Your task to perform on an android device: turn off priority inbox in the gmail app Image 0: 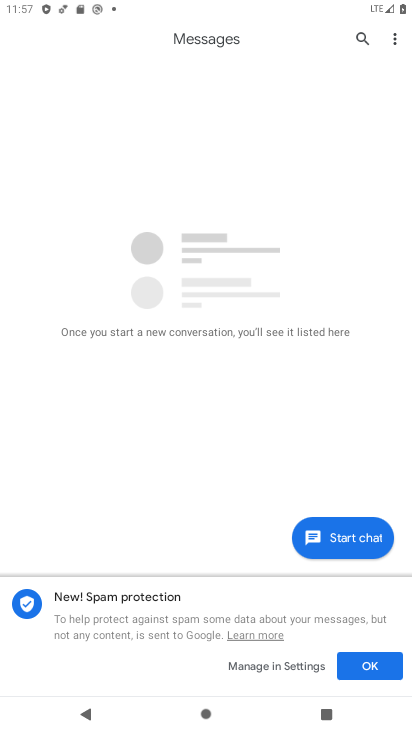
Step 0: press home button
Your task to perform on an android device: turn off priority inbox in the gmail app Image 1: 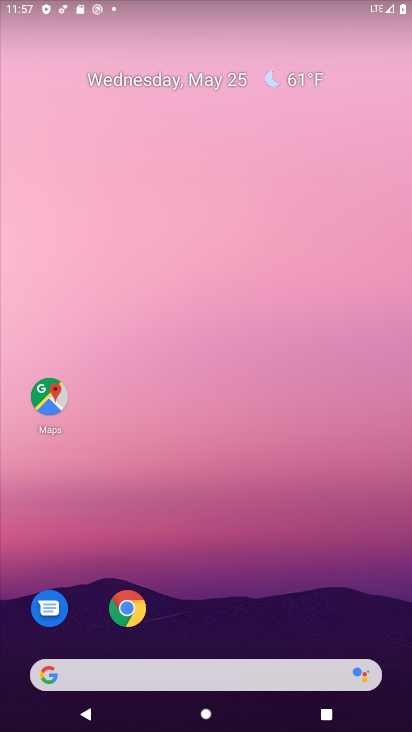
Step 1: drag from (348, 611) to (281, 81)
Your task to perform on an android device: turn off priority inbox in the gmail app Image 2: 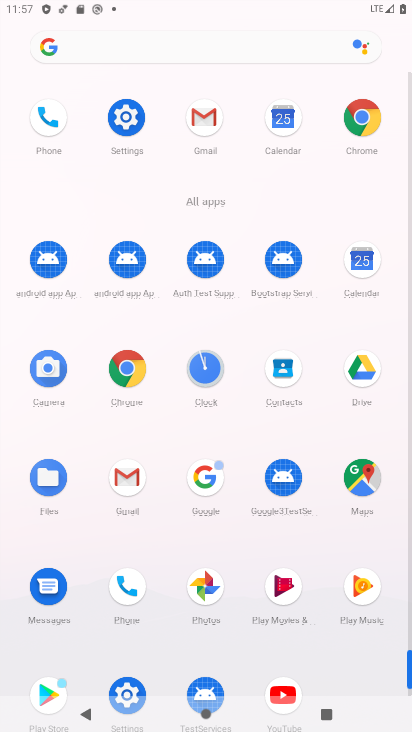
Step 2: click (126, 476)
Your task to perform on an android device: turn off priority inbox in the gmail app Image 3: 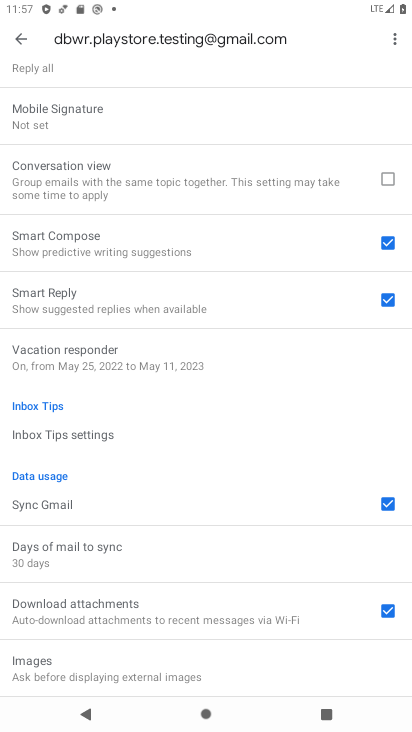
Step 3: drag from (221, 288) to (188, 576)
Your task to perform on an android device: turn off priority inbox in the gmail app Image 4: 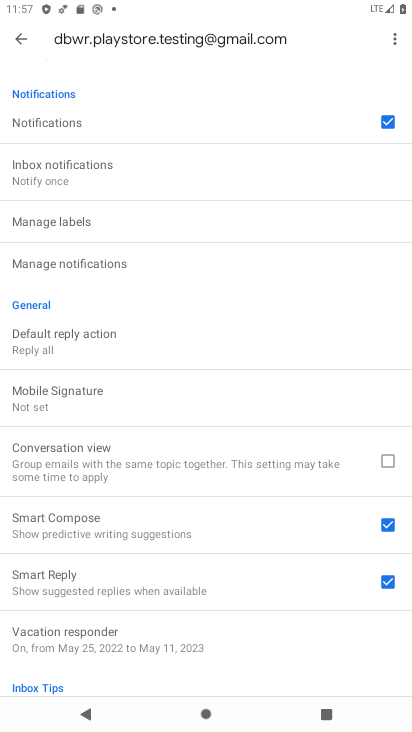
Step 4: drag from (208, 210) to (191, 420)
Your task to perform on an android device: turn off priority inbox in the gmail app Image 5: 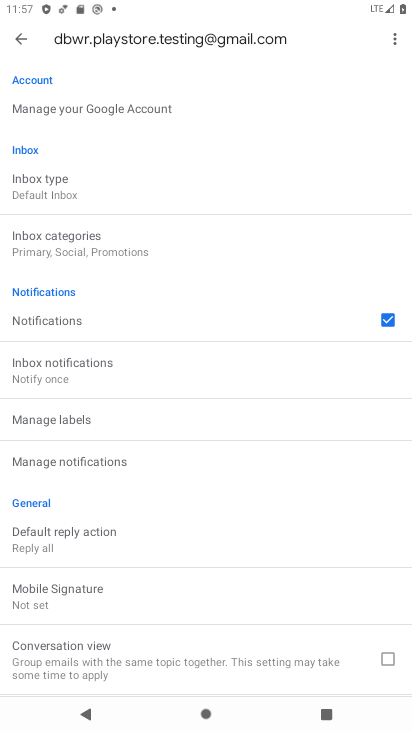
Step 5: click (36, 188)
Your task to perform on an android device: turn off priority inbox in the gmail app Image 6: 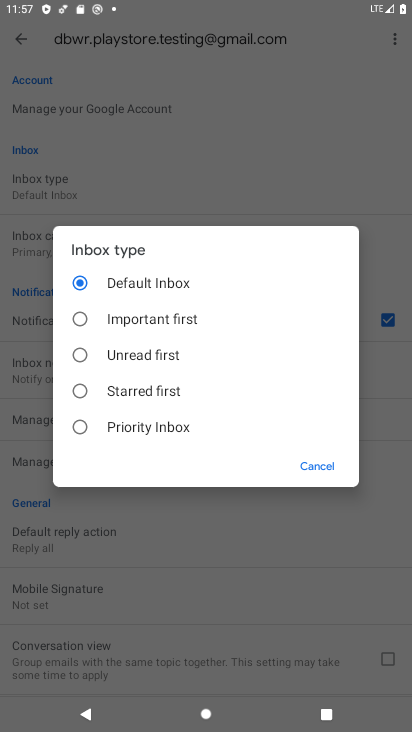
Step 6: task complete